Your task to perform on an android device: choose inbox layout in the gmail app Image 0: 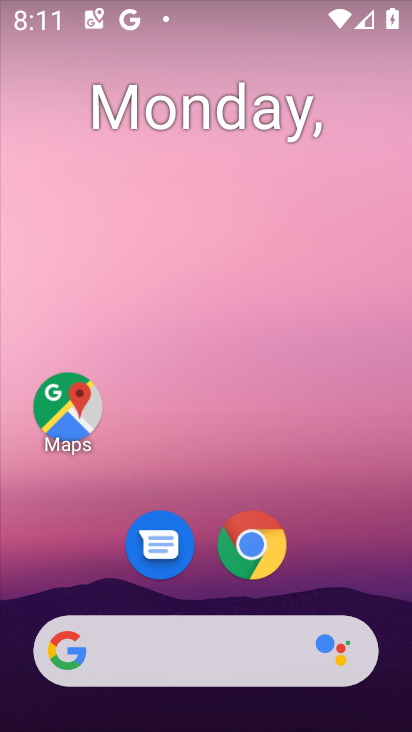
Step 0: press home button
Your task to perform on an android device: choose inbox layout in the gmail app Image 1: 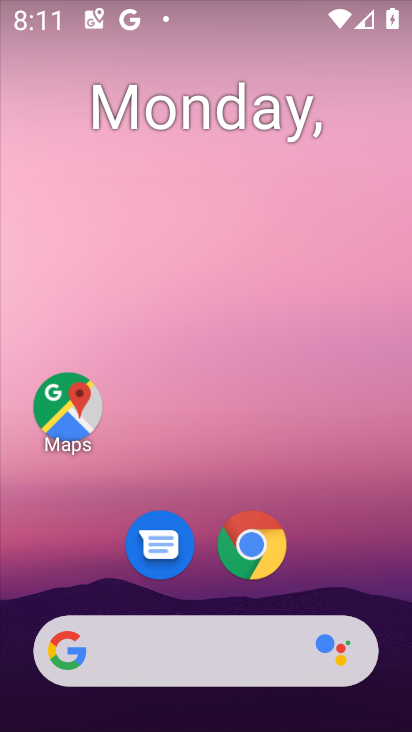
Step 1: drag from (177, 641) to (306, 134)
Your task to perform on an android device: choose inbox layout in the gmail app Image 2: 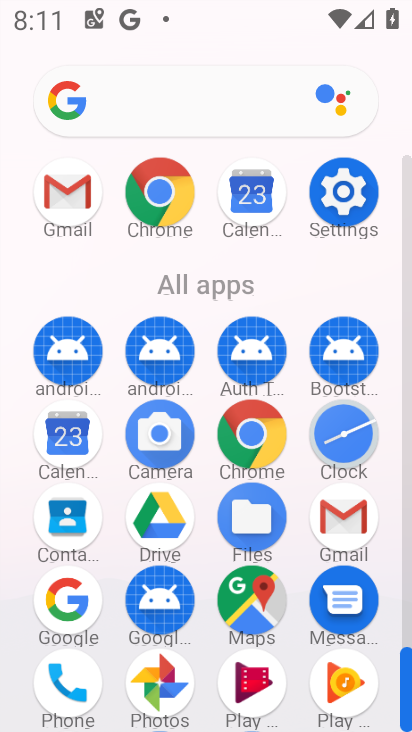
Step 2: click (68, 205)
Your task to perform on an android device: choose inbox layout in the gmail app Image 3: 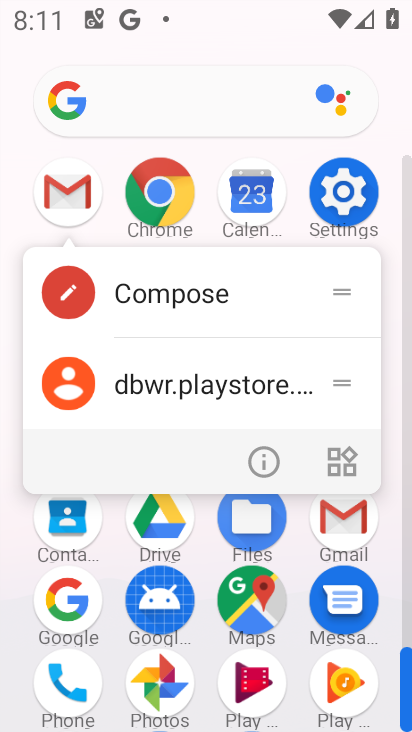
Step 3: click (66, 200)
Your task to perform on an android device: choose inbox layout in the gmail app Image 4: 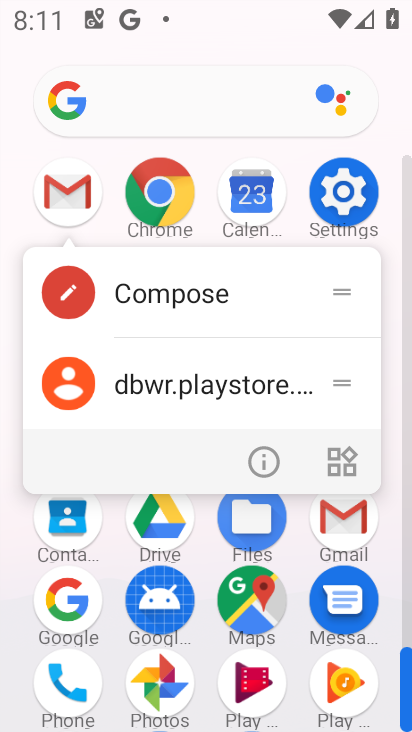
Step 4: click (66, 201)
Your task to perform on an android device: choose inbox layout in the gmail app Image 5: 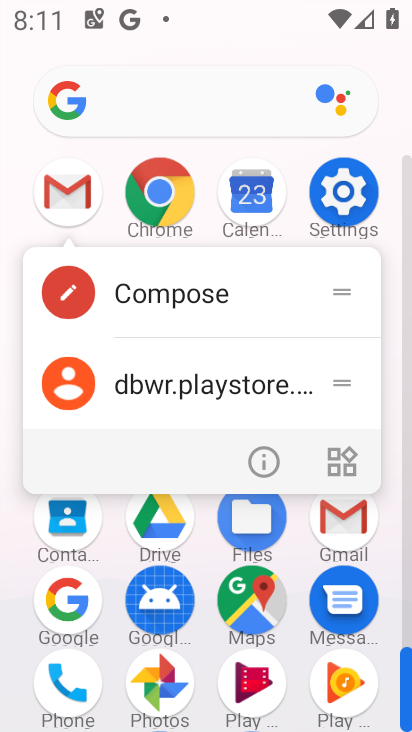
Step 5: click (75, 188)
Your task to perform on an android device: choose inbox layout in the gmail app Image 6: 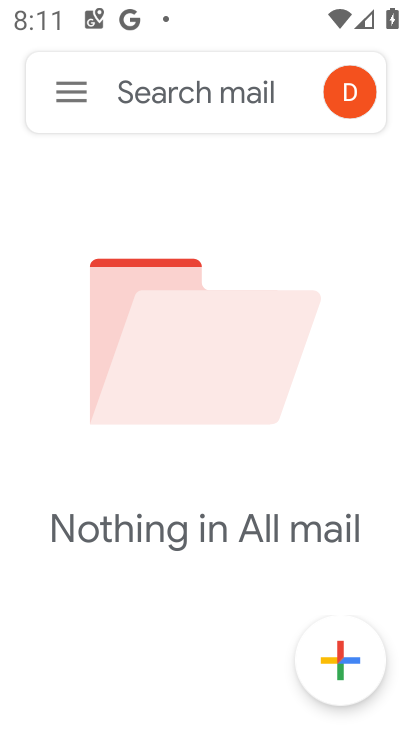
Step 6: click (77, 86)
Your task to perform on an android device: choose inbox layout in the gmail app Image 7: 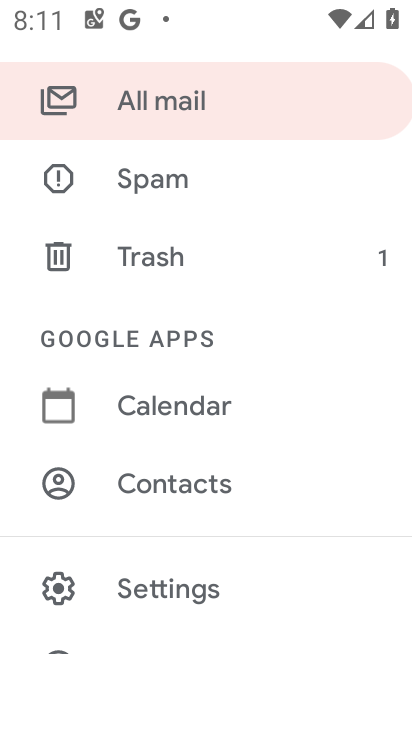
Step 7: click (184, 591)
Your task to perform on an android device: choose inbox layout in the gmail app Image 8: 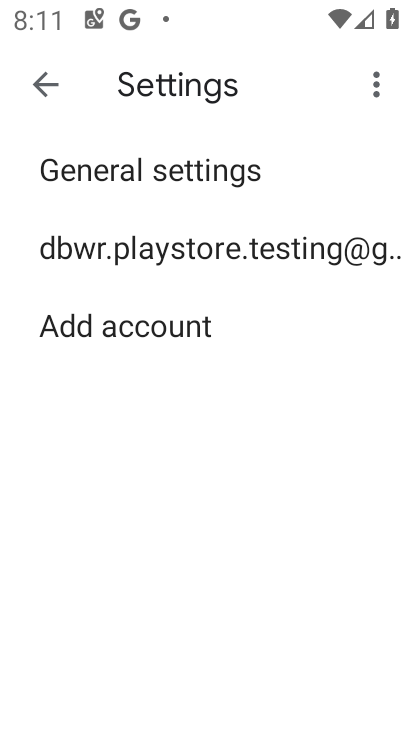
Step 8: click (230, 249)
Your task to perform on an android device: choose inbox layout in the gmail app Image 9: 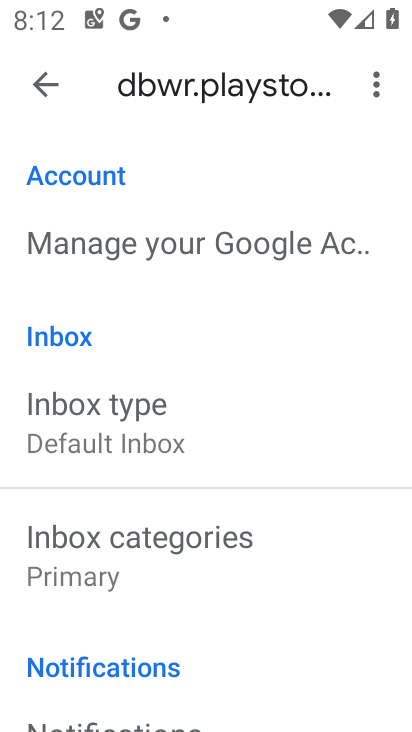
Step 9: click (101, 452)
Your task to perform on an android device: choose inbox layout in the gmail app Image 10: 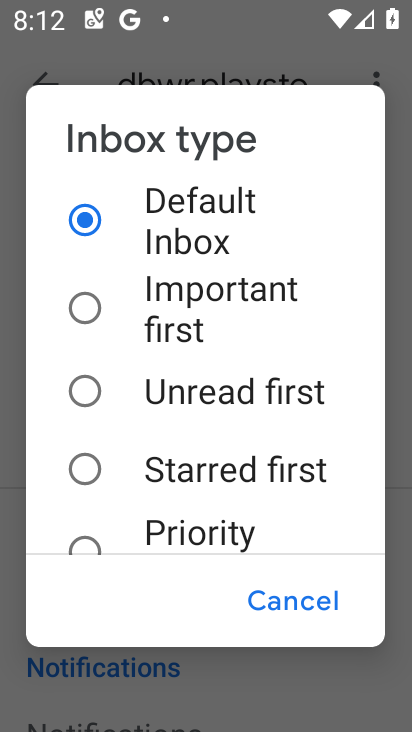
Step 10: click (81, 314)
Your task to perform on an android device: choose inbox layout in the gmail app Image 11: 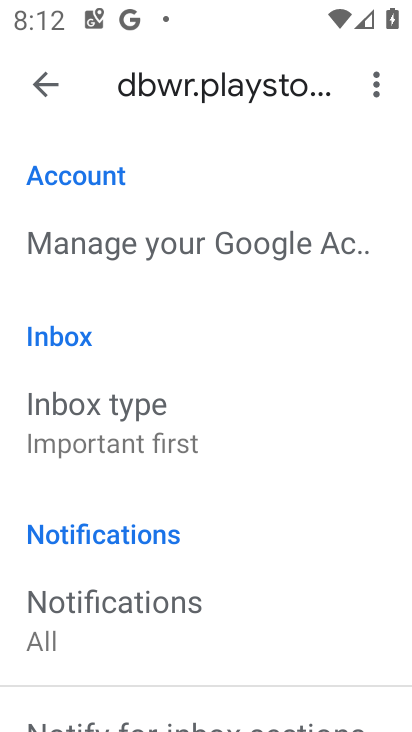
Step 11: task complete